Your task to perform on an android device: Find coffee shops on Maps Image 0: 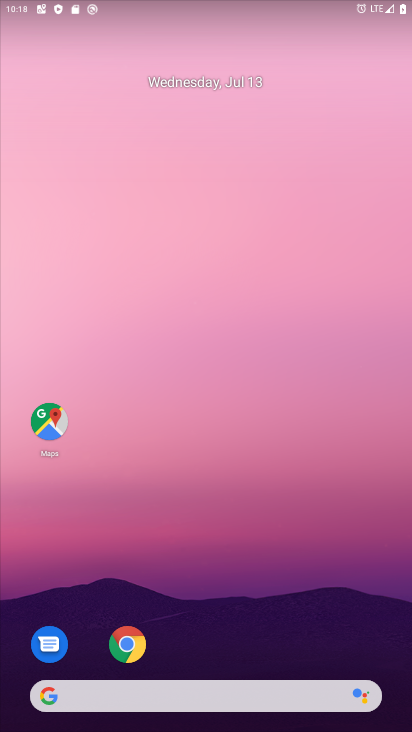
Step 0: drag from (219, 727) to (220, 177)
Your task to perform on an android device: Find coffee shops on Maps Image 1: 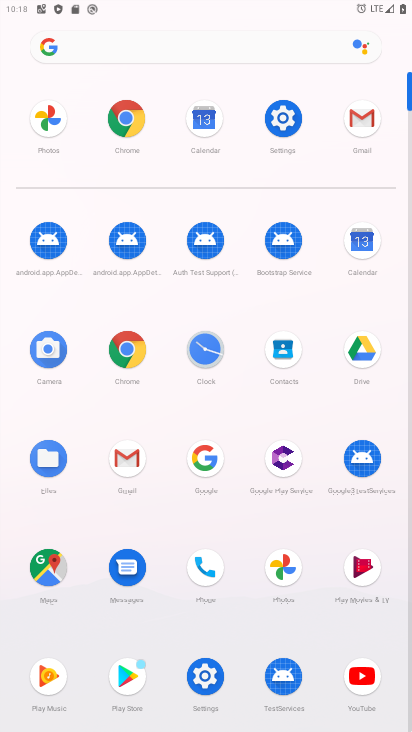
Step 1: click (51, 570)
Your task to perform on an android device: Find coffee shops on Maps Image 2: 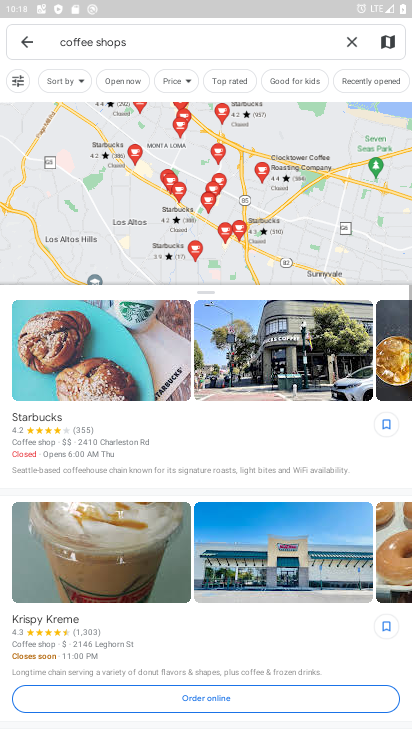
Step 2: click (346, 44)
Your task to perform on an android device: Find coffee shops on Maps Image 3: 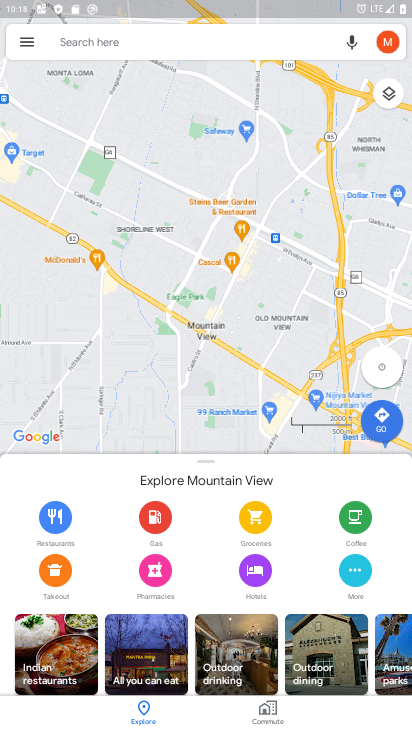
Step 3: click (188, 41)
Your task to perform on an android device: Find coffee shops on Maps Image 4: 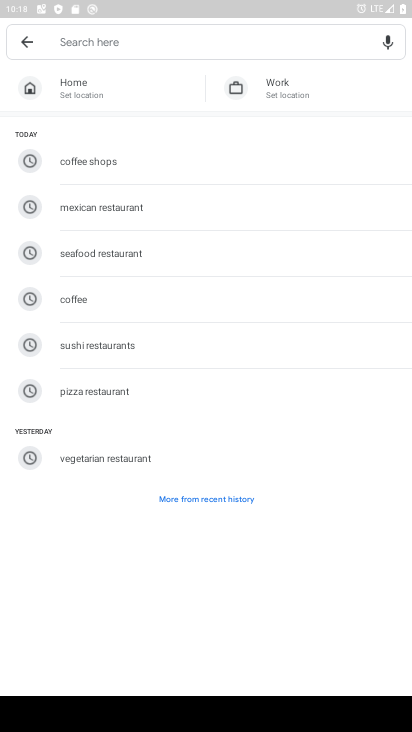
Step 4: type "coffee sops"
Your task to perform on an android device: Find coffee shops on Maps Image 5: 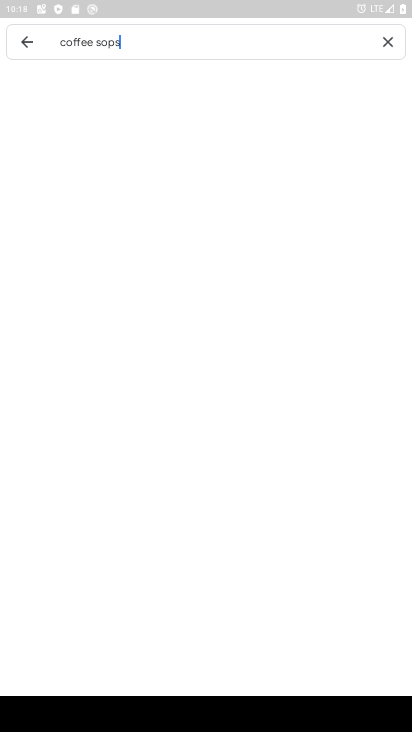
Step 5: type ""
Your task to perform on an android device: Find coffee shops on Maps Image 6: 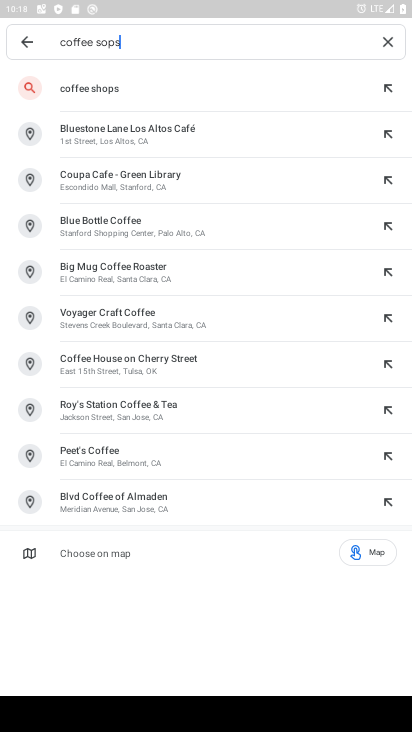
Step 6: click (86, 89)
Your task to perform on an android device: Find coffee shops on Maps Image 7: 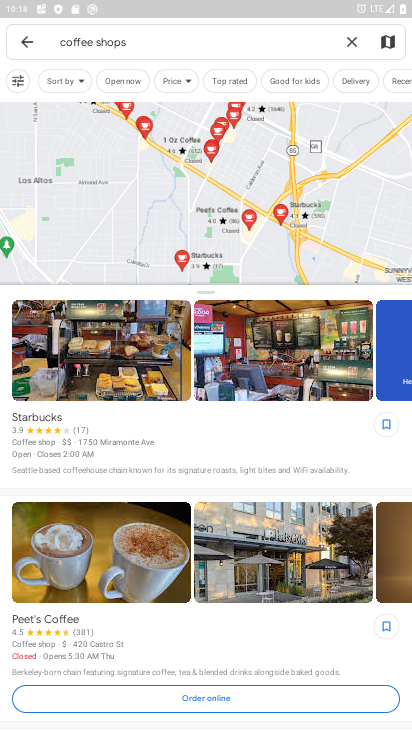
Step 7: task complete